Your task to perform on an android device: toggle sleep mode Image 0: 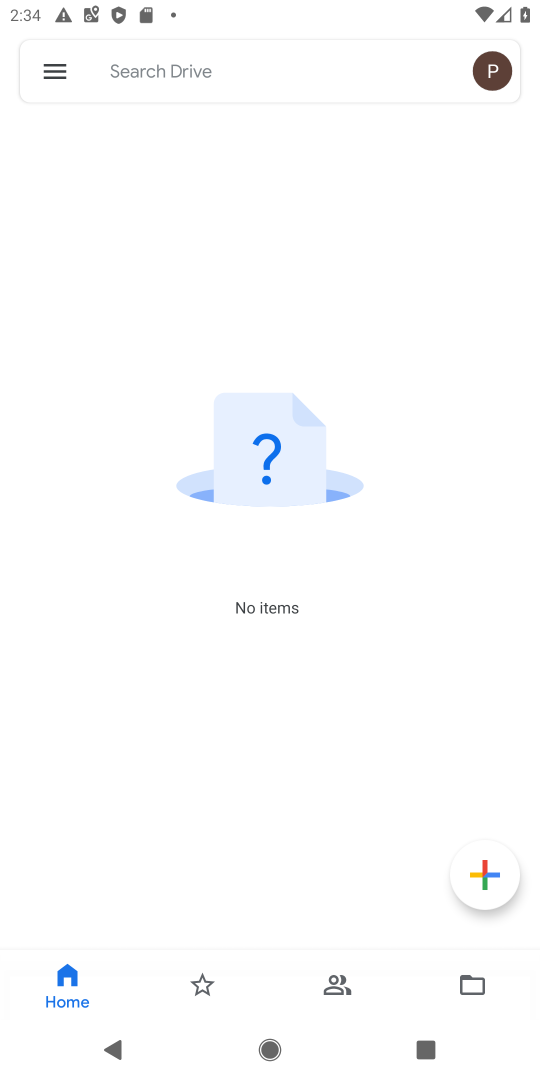
Step 0: press back button
Your task to perform on an android device: toggle sleep mode Image 1: 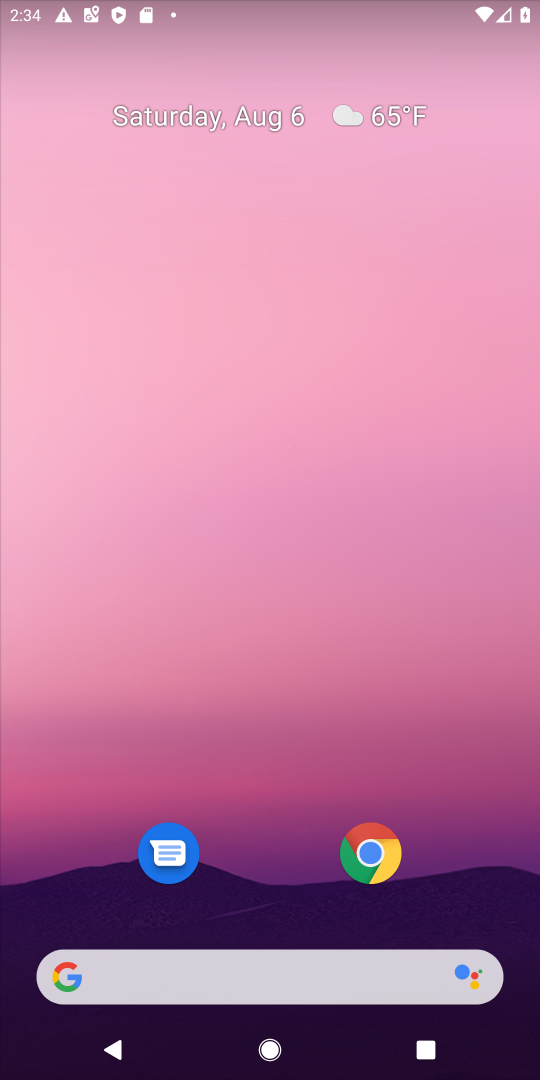
Step 1: drag from (262, 870) to (337, 120)
Your task to perform on an android device: toggle sleep mode Image 2: 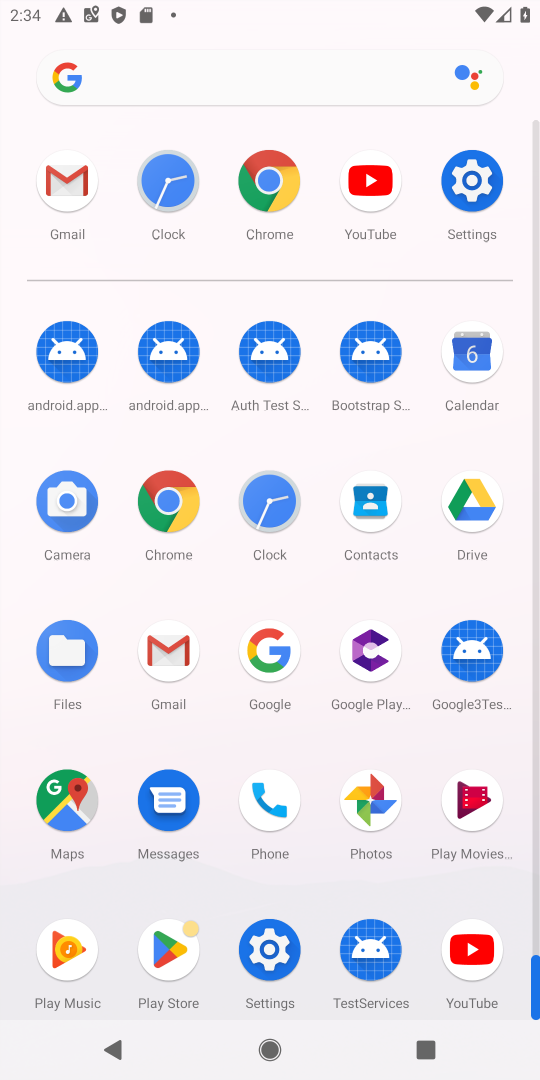
Step 2: click (479, 192)
Your task to perform on an android device: toggle sleep mode Image 3: 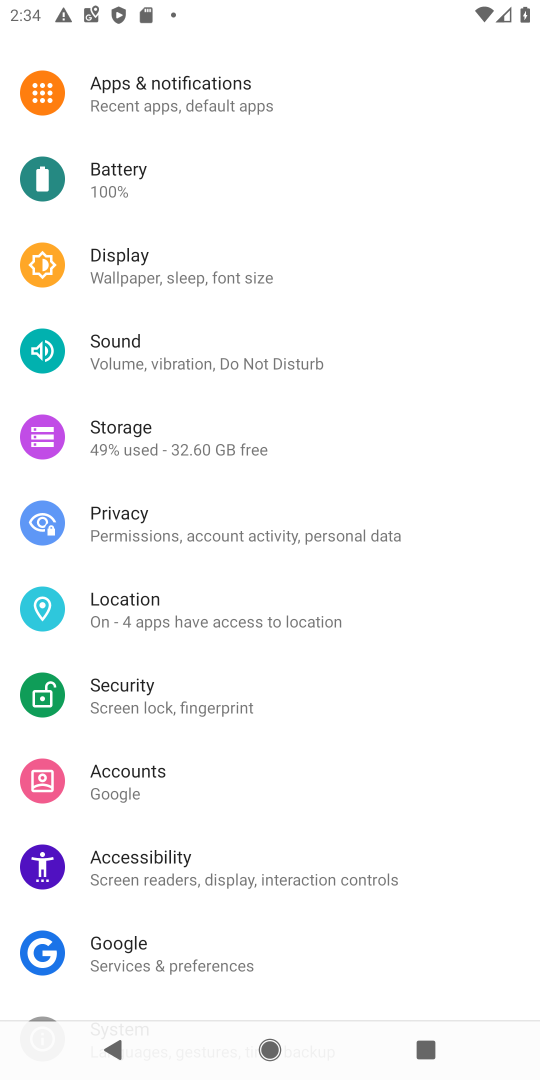
Step 3: drag from (313, 205) to (262, 1043)
Your task to perform on an android device: toggle sleep mode Image 4: 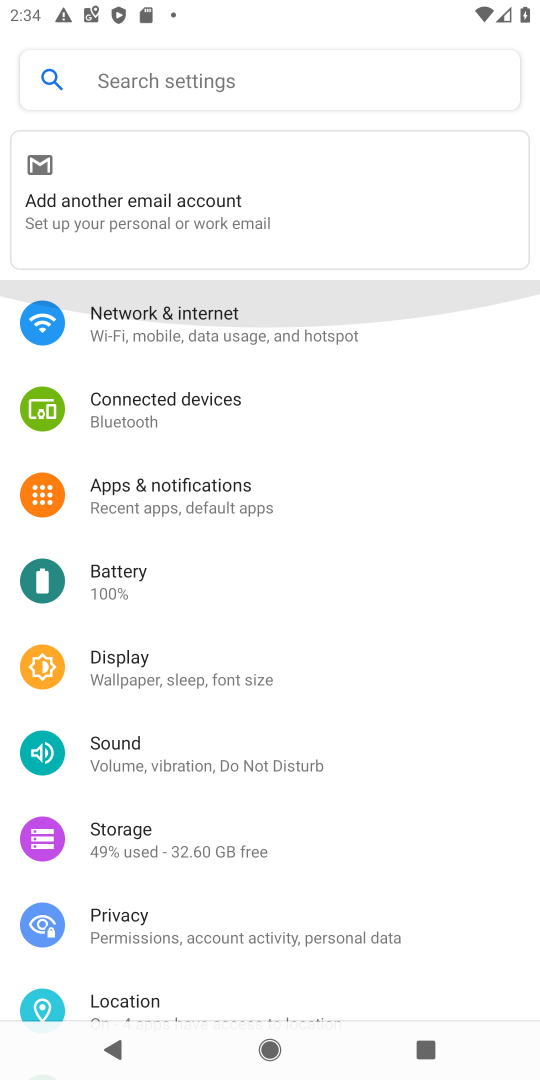
Step 4: click (179, 57)
Your task to perform on an android device: toggle sleep mode Image 5: 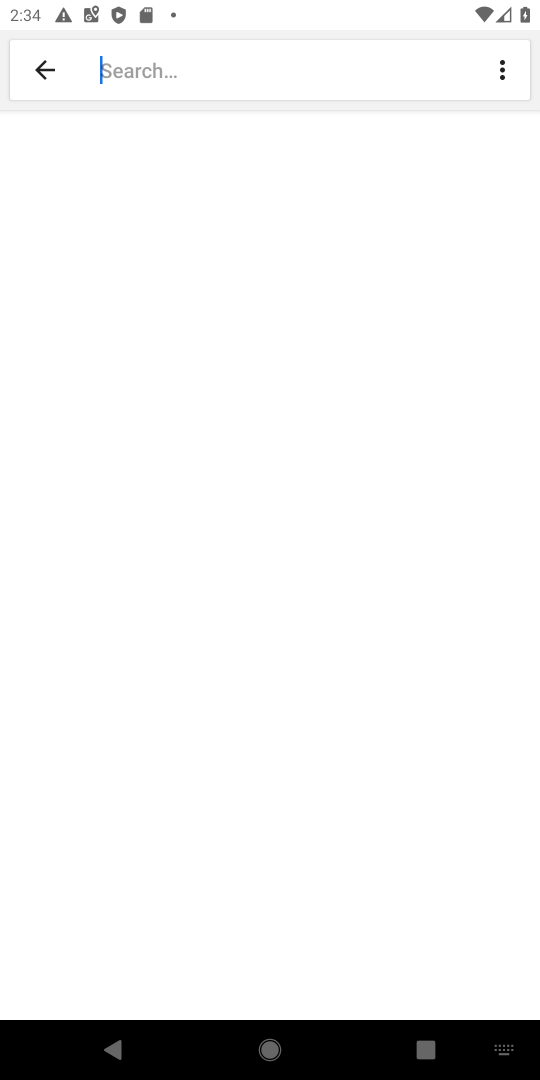
Step 5: type "sleep mode"
Your task to perform on an android device: toggle sleep mode Image 6: 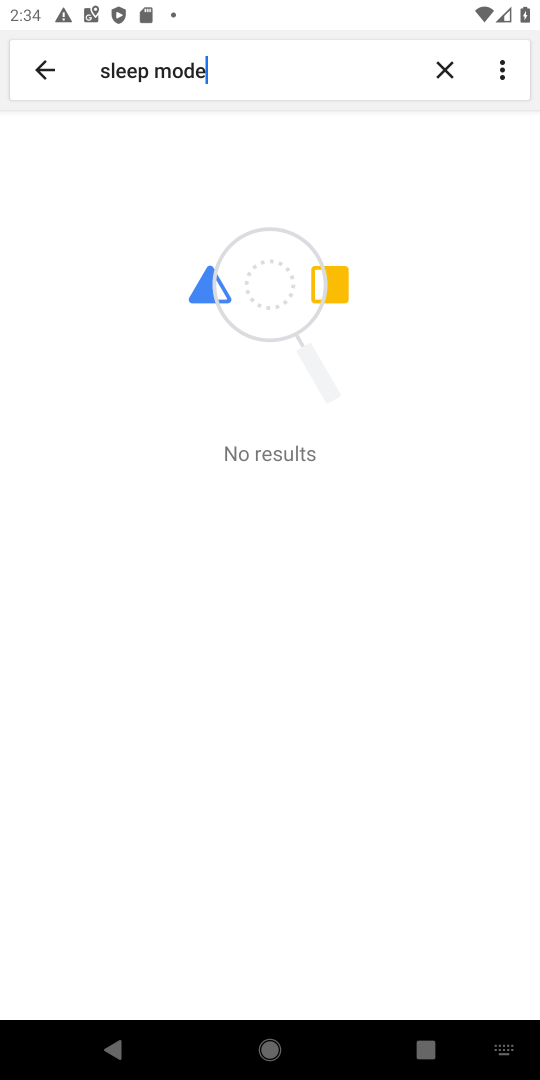
Step 6: task complete